Your task to perform on an android device: Add "logitech g933" to the cart on costco.com, then select checkout. Image 0: 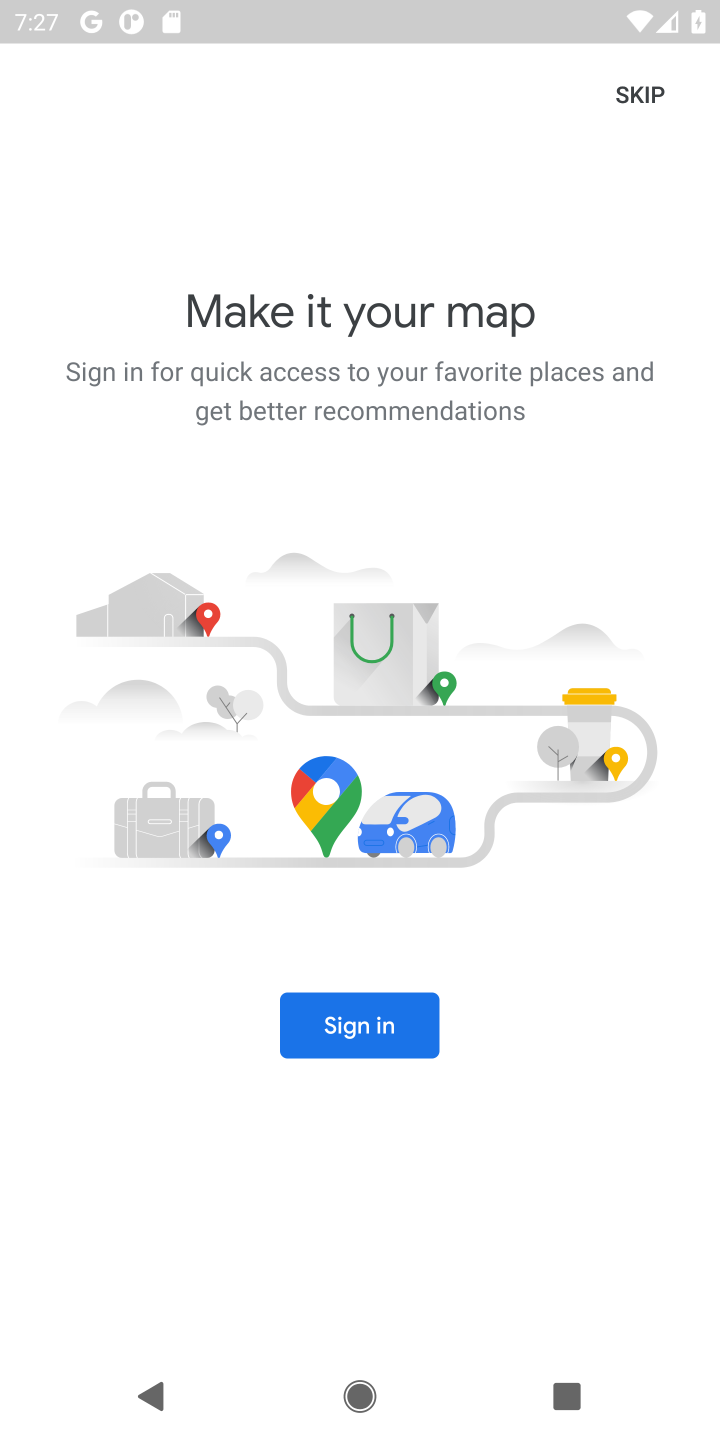
Step 0: press home button
Your task to perform on an android device: Add "logitech g933" to the cart on costco.com, then select checkout. Image 1: 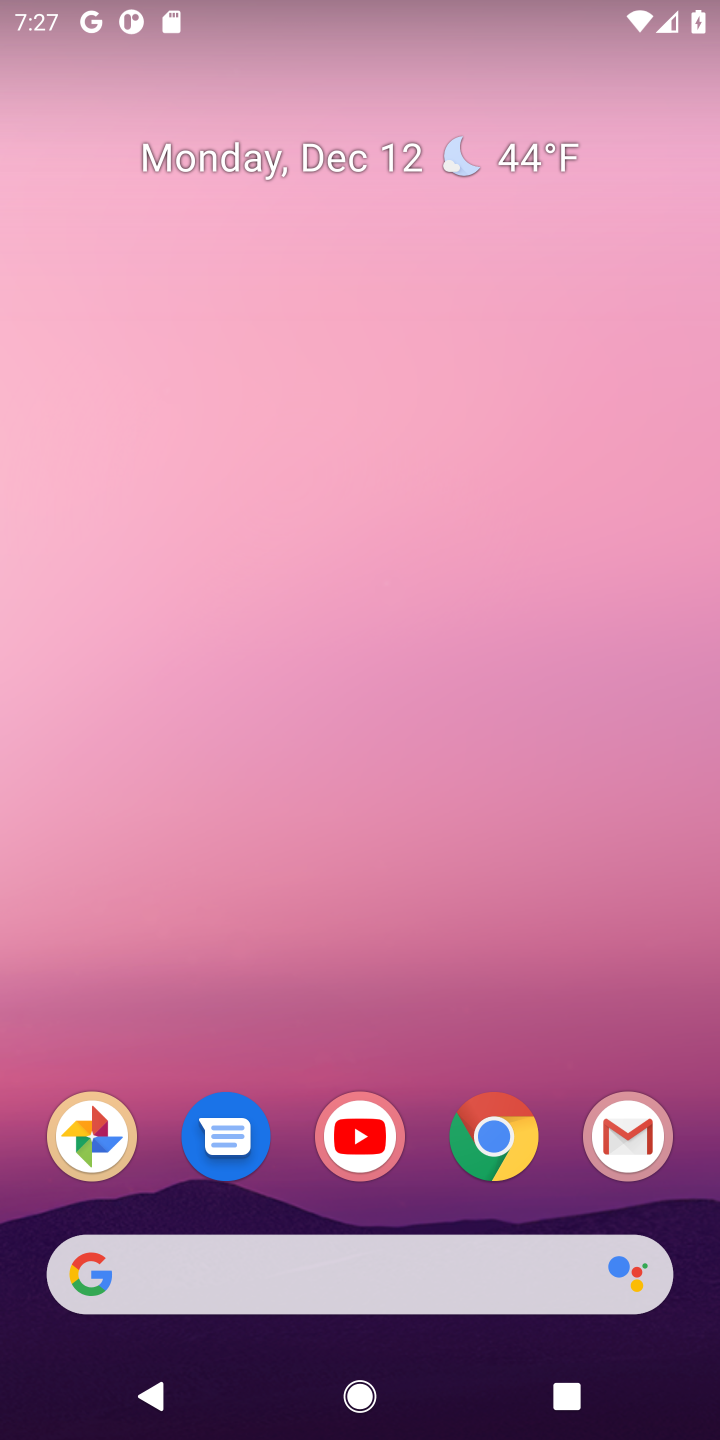
Step 1: click (506, 1143)
Your task to perform on an android device: Add "logitech g933" to the cart on costco.com, then select checkout. Image 2: 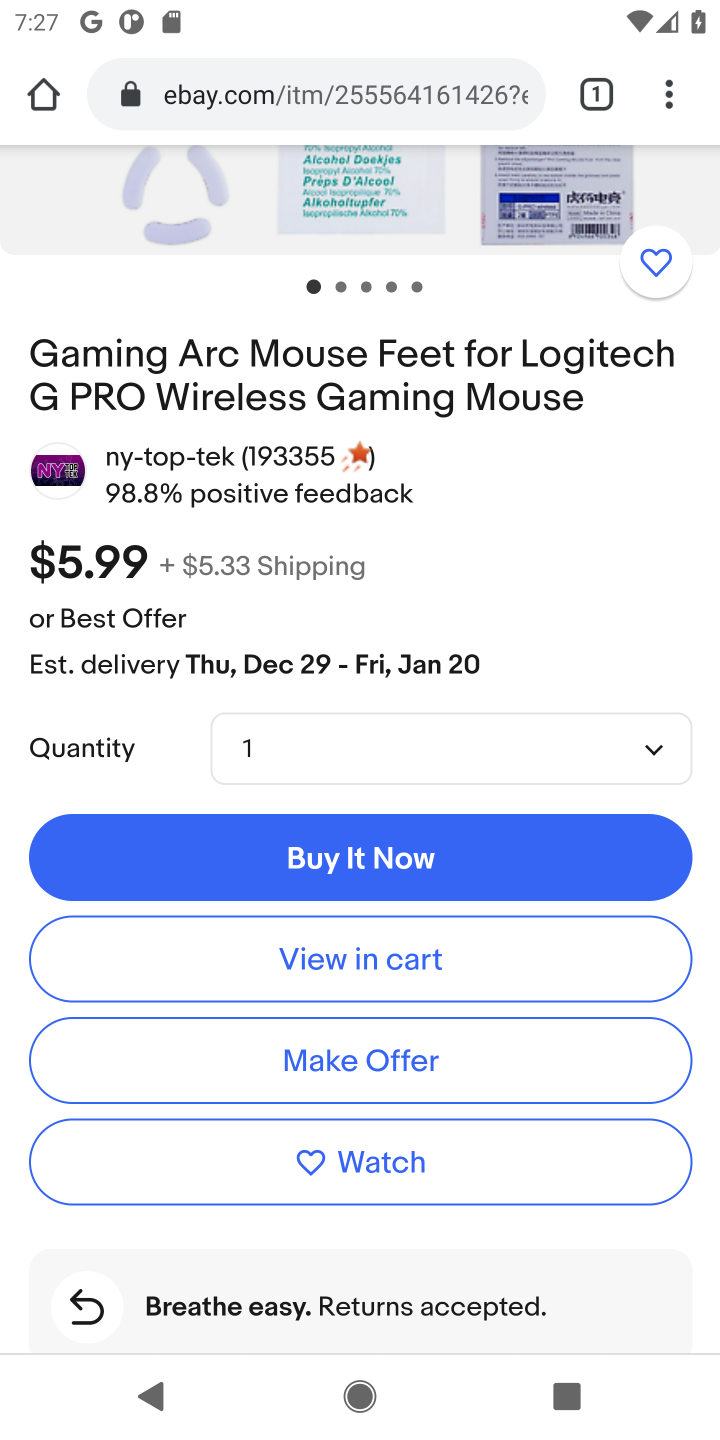
Step 2: click (280, 90)
Your task to perform on an android device: Add "logitech g933" to the cart on costco.com, then select checkout. Image 3: 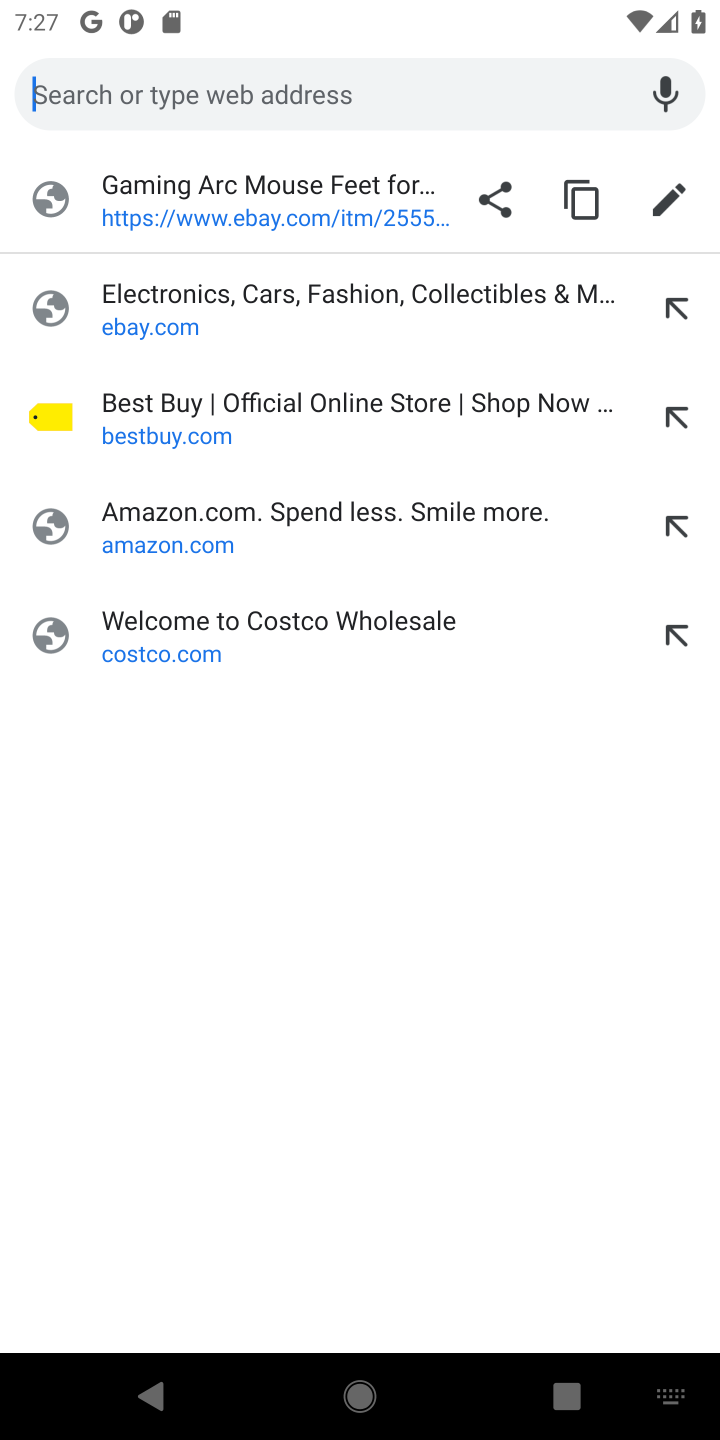
Step 3: click (156, 641)
Your task to perform on an android device: Add "logitech g933" to the cart on costco.com, then select checkout. Image 4: 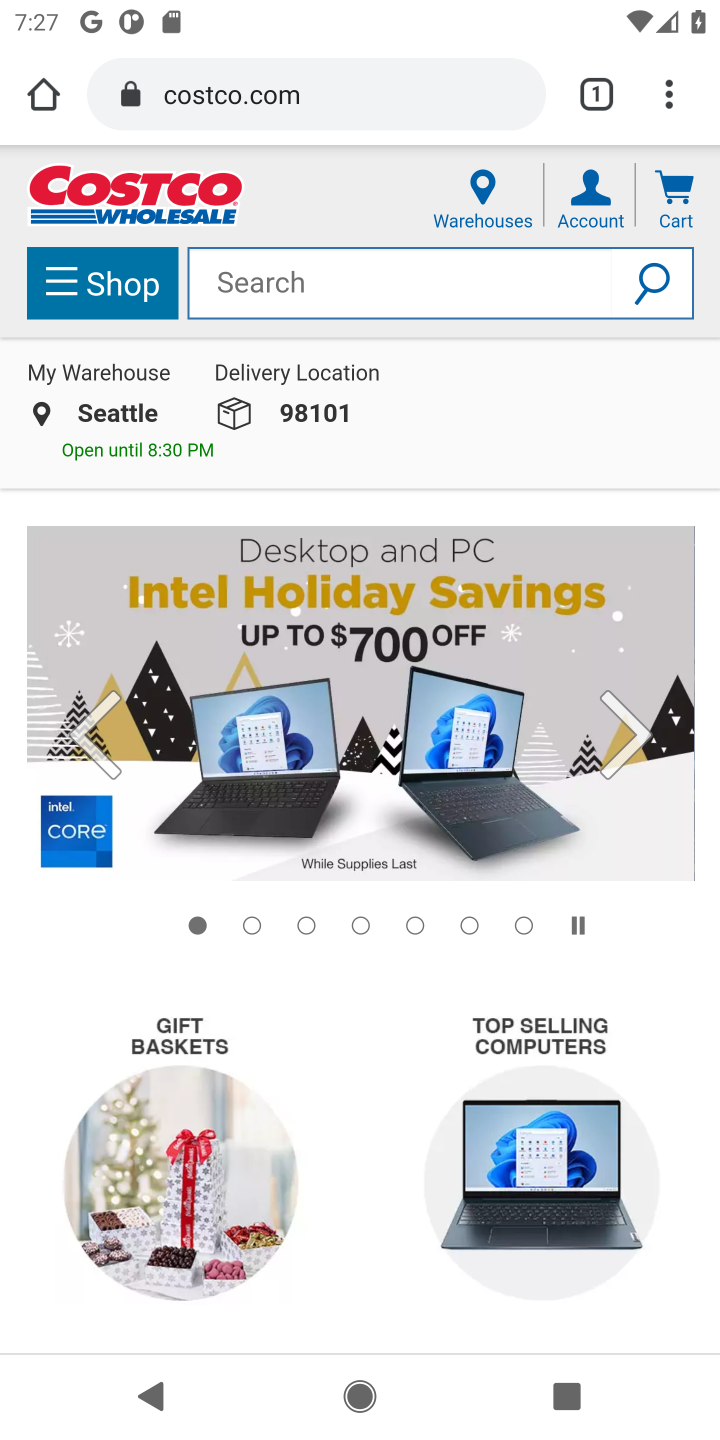
Step 4: click (313, 296)
Your task to perform on an android device: Add "logitech g933" to the cart on costco.com, then select checkout. Image 5: 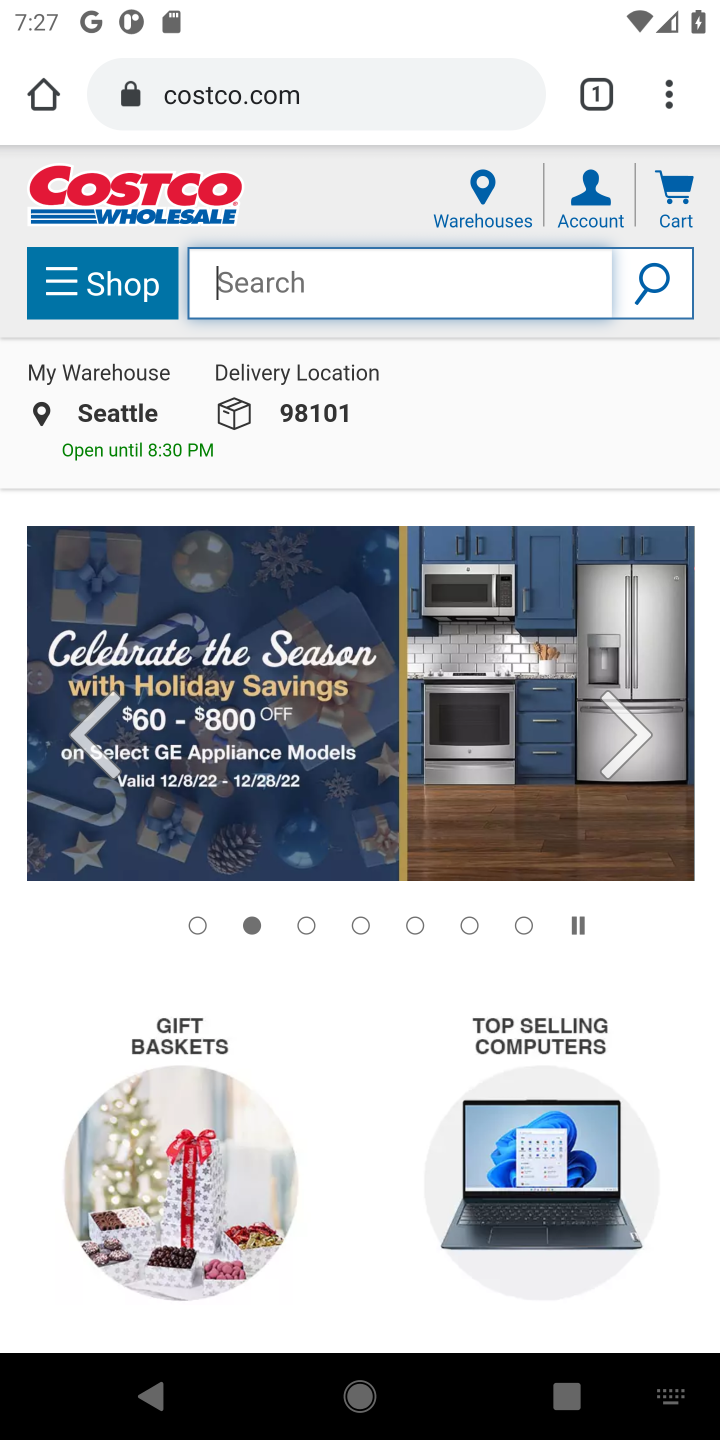
Step 5: type "logitech g933"
Your task to perform on an android device: Add "logitech g933" to the cart on costco.com, then select checkout. Image 6: 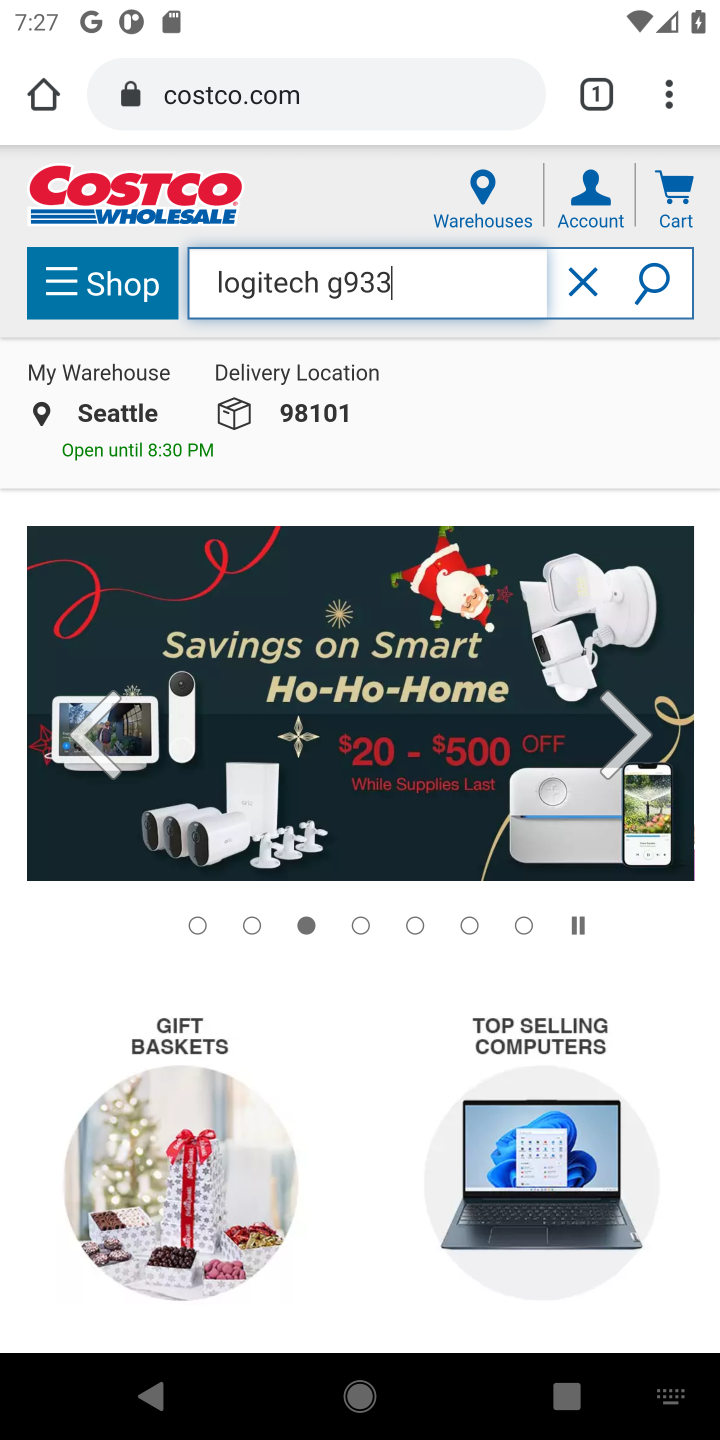
Step 6: click (647, 288)
Your task to perform on an android device: Add "logitech g933" to the cart on costco.com, then select checkout. Image 7: 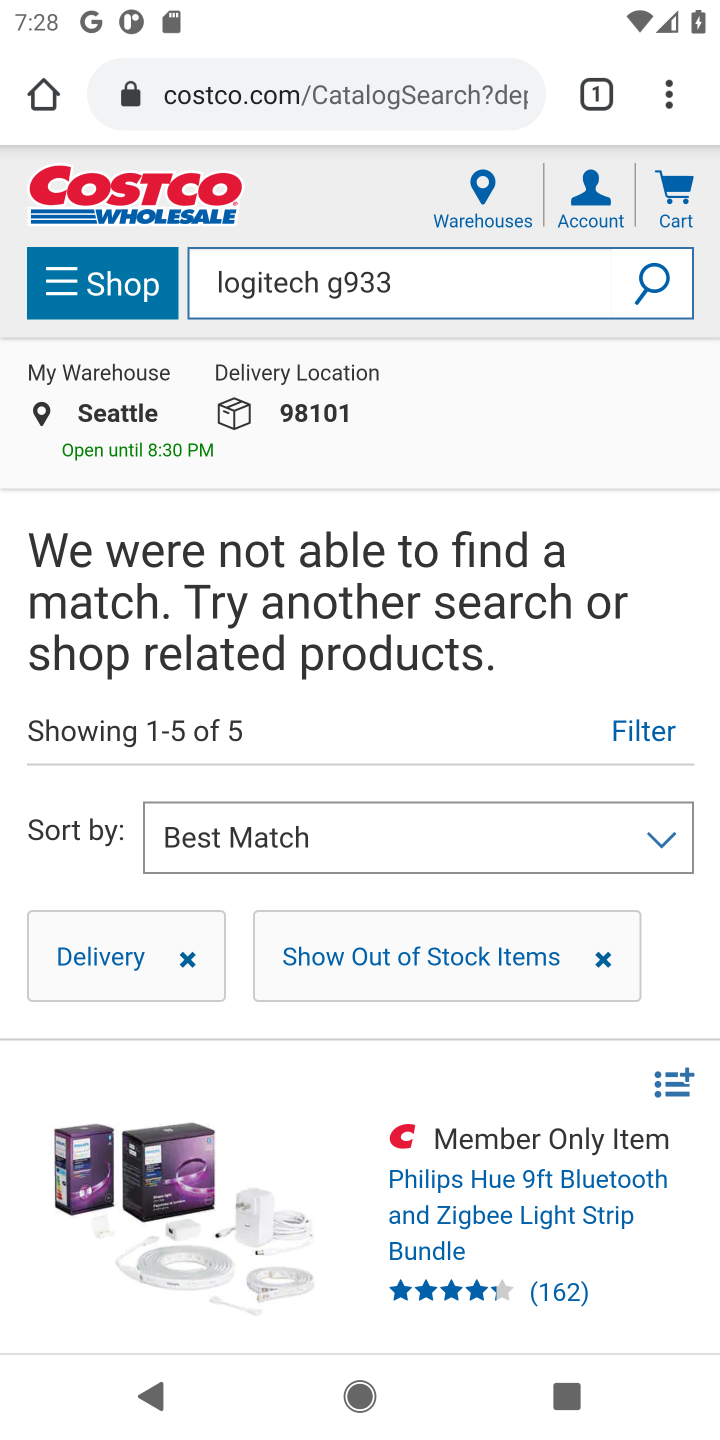
Step 7: task complete